Your task to perform on an android device: Open maps Image 0: 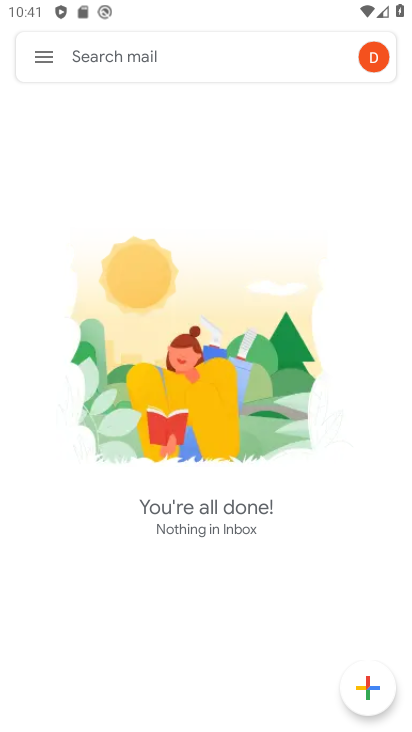
Step 0: press home button
Your task to perform on an android device: Open maps Image 1: 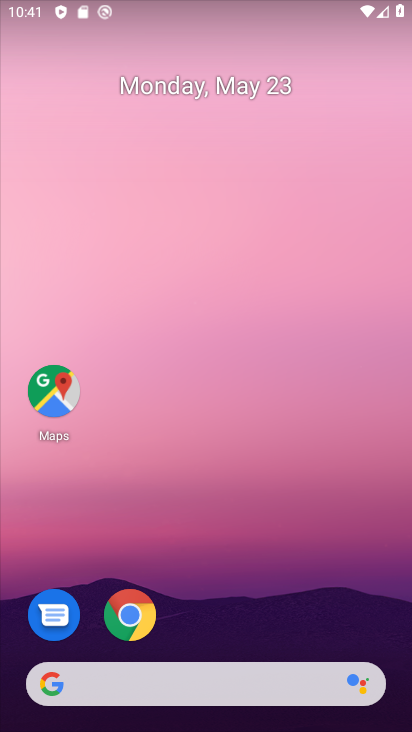
Step 1: click (64, 382)
Your task to perform on an android device: Open maps Image 2: 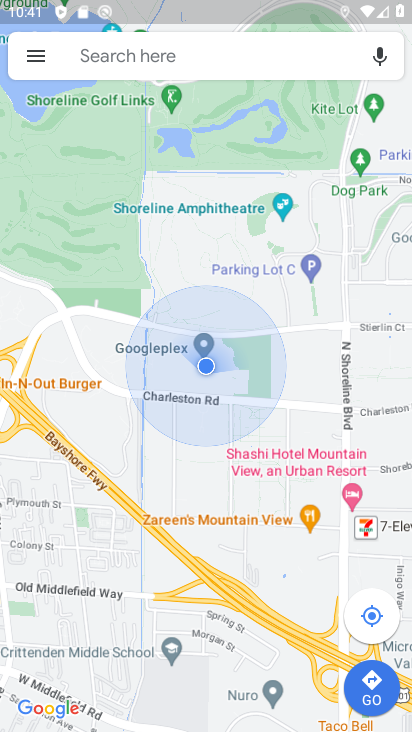
Step 2: task complete